Your task to perform on an android device: turn on data saver in the chrome app Image 0: 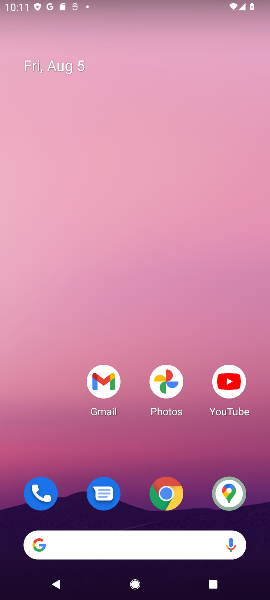
Step 0: press home button
Your task to perform on an android device: turn on data saver in the chrome app Image 1: 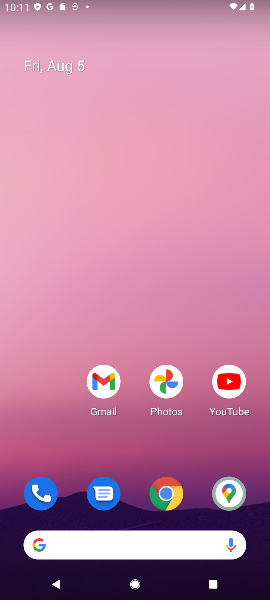
Step 1: drag from (130, 465) to (147, 44)
Your task to perform on an android device: turn on data saver in the chrome app Image 2: 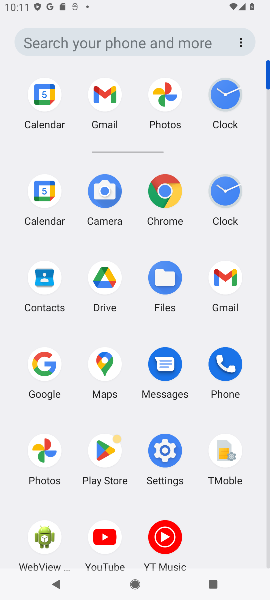
Step 2: click (163, 185)
Your task to perform on an android device: turn on data saver in the chrome app Image 3: 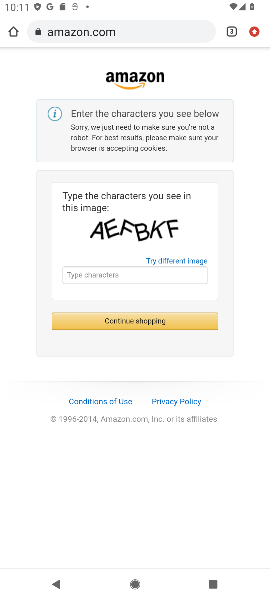
Step 3: click (231, 23)
Your task to perform on an android device: turn on data saver in the chrome app Image 4: 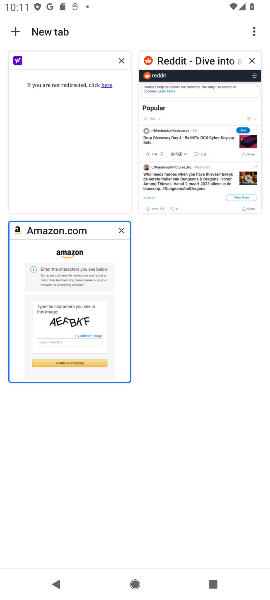
Step 4: click (20, 34)
Your task to perform on an android device: turn on data saver in the chrome app Image 5: 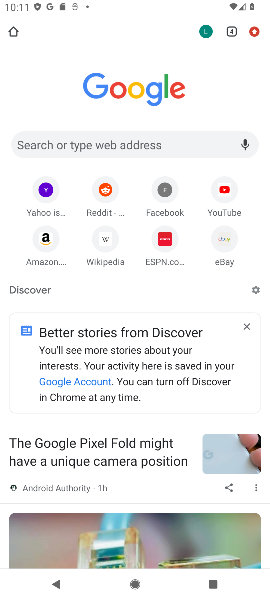
Step 5: click (252, 28)
Your task to perform on an android device: turn on data saver in the chrome app Image 6: 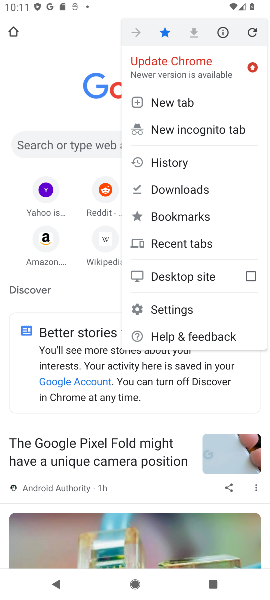
Step 6: click (195, 305)
Your task to perform on an android device: turn on data saver in the chrome app Image 7: 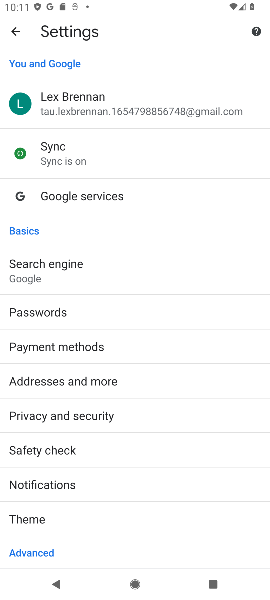
Step 7: drag from (81, 515) to (113, 3)
Your task to perform on an android device: turn on data saver in the chrome app Image 8: 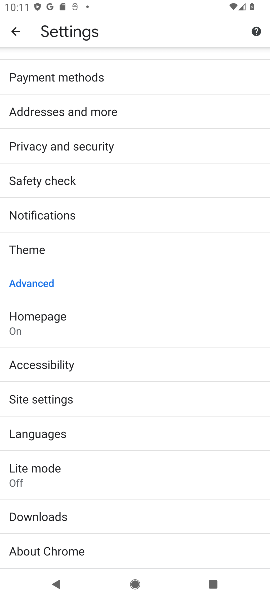
Step 8: click (75, 470)
Your task to perform on an android device: turn on data saver in the chrome app Image 9: 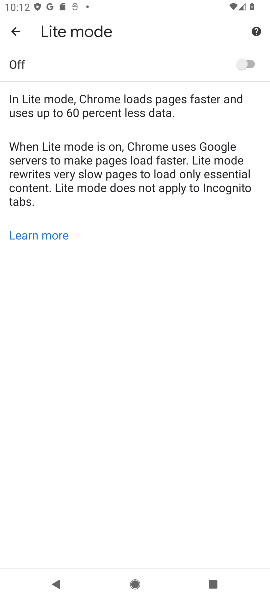
Step 9: click (247, 64)
Your task to perform on an android device: turn on data saver in the chrome app Image 10: 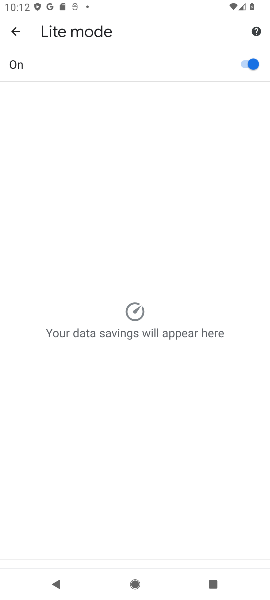
Step 10: task complete